Your task to perform on an android device: Go to settings Image 0: 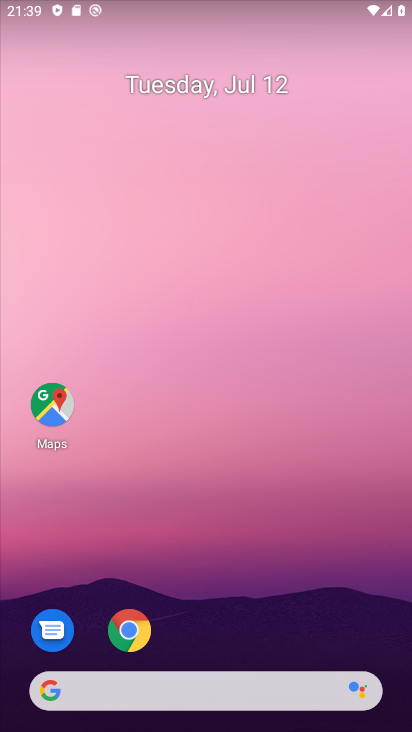
Step 0: drag from (257, 591) to (312, 222)
Your task to perform on an android device: Go to settings Image 1: 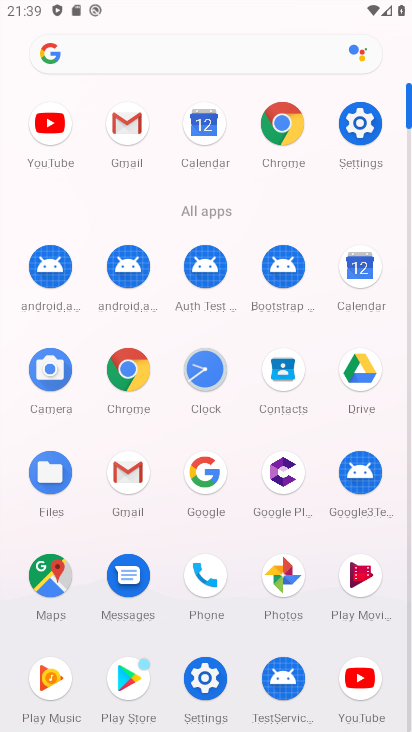
Step 1: click (345, 113)
Your task to perform on an android device: Go to settings Image 2: 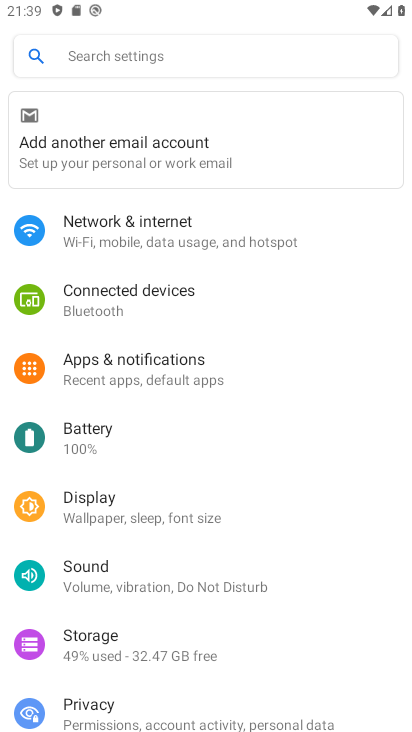
Step 2: task complete